Your task to perform on an android device: Is it going to rain tomorrow? Image 0: 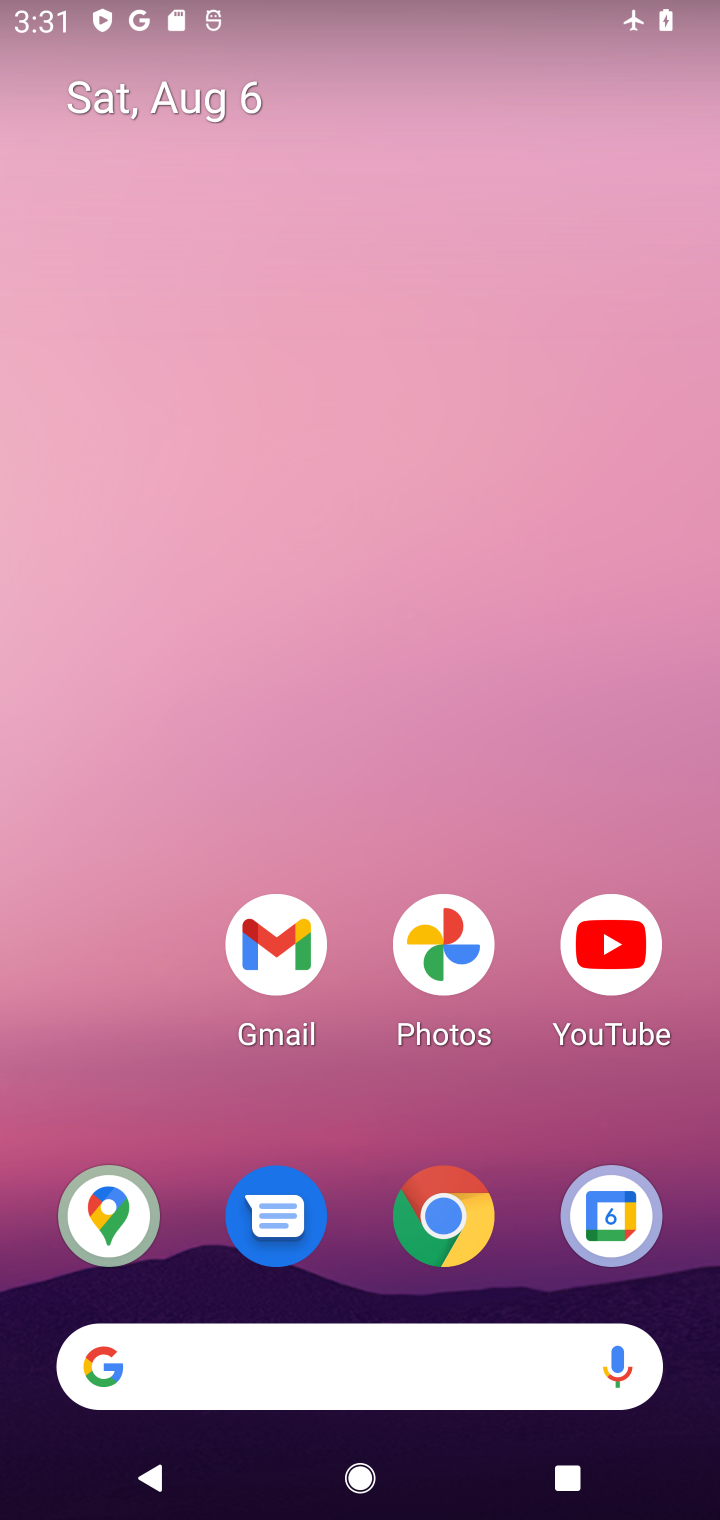
Step 0: click (451, 1260)
Your task to perform on an android device: Is it going to rain tomorrow? Image 1: 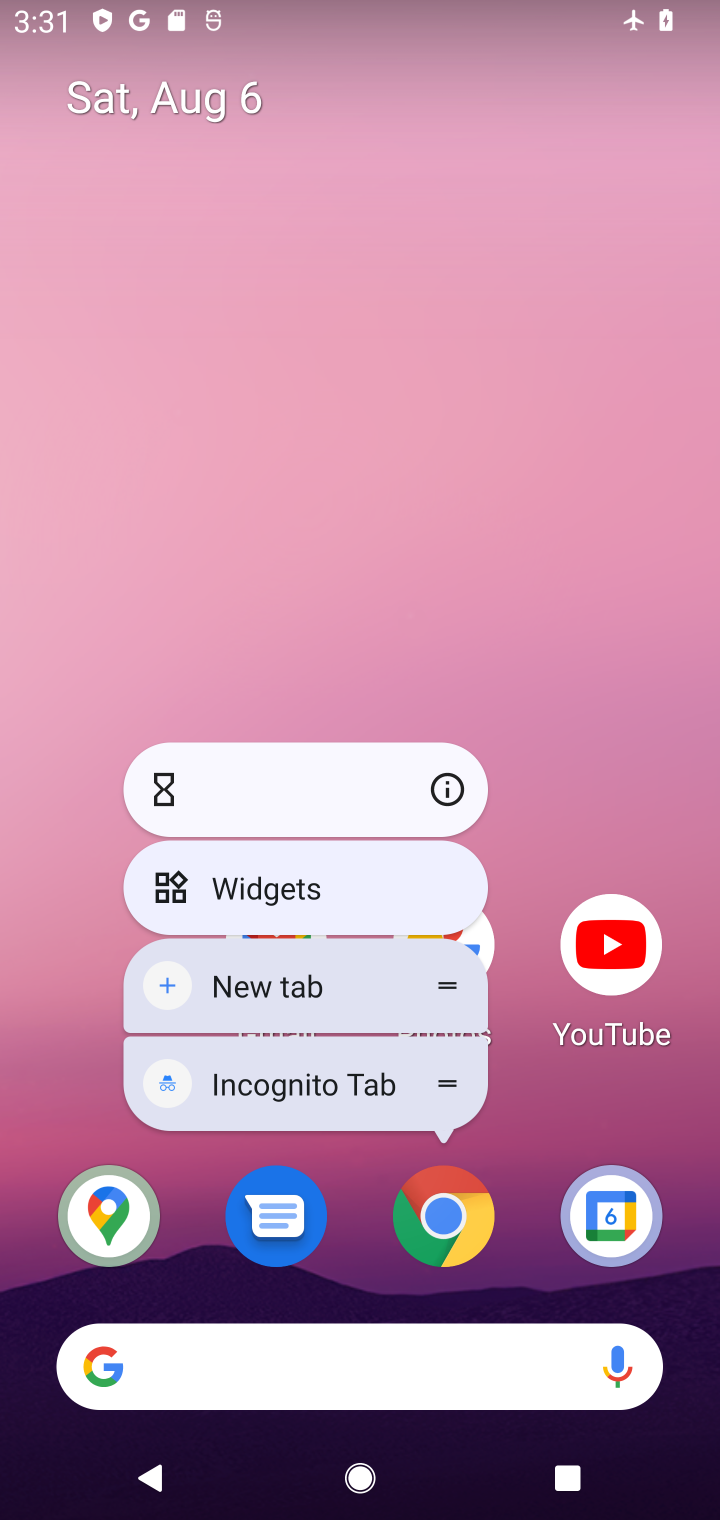
Step 1: click (449, 1232)
Your task to perform on an android device: Is it going to rain tomorrow? Image 2: 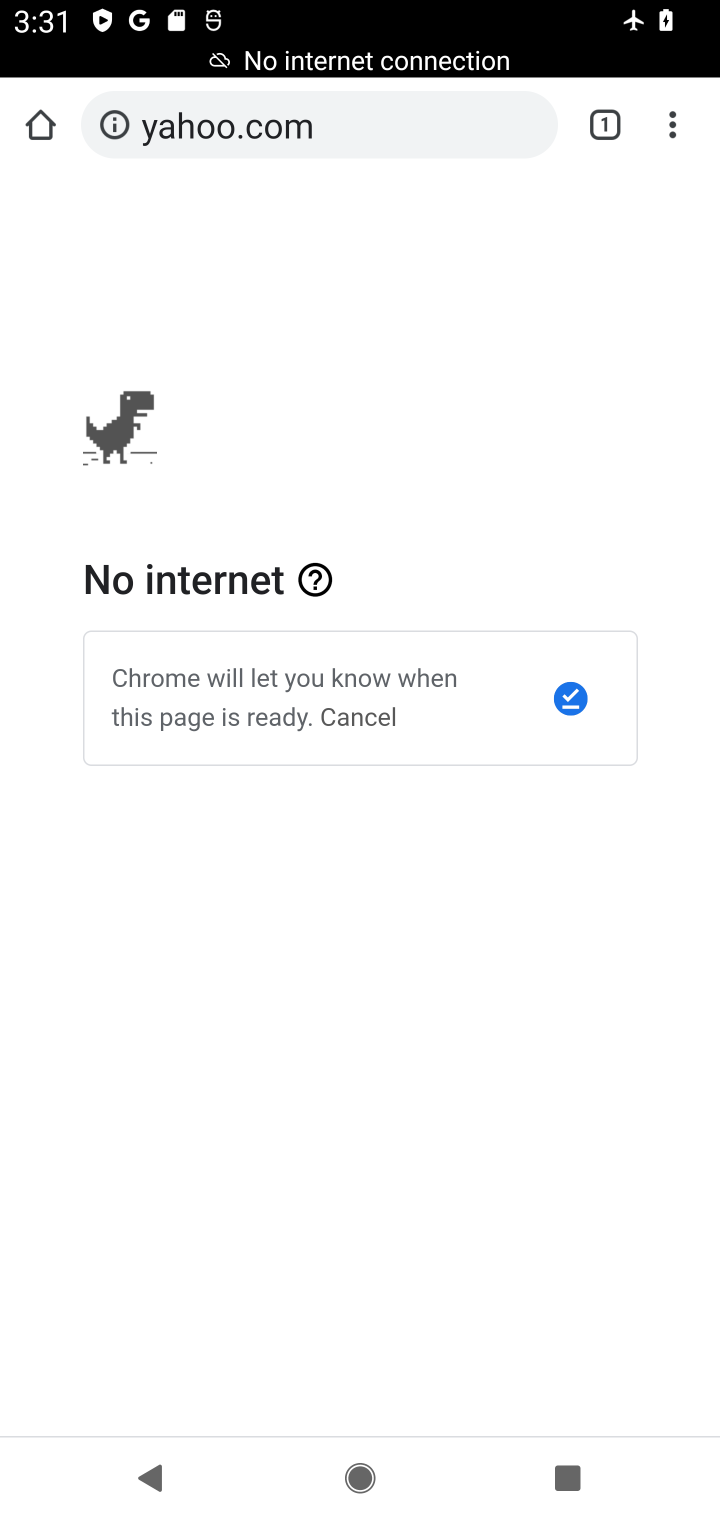
Step 2: click (388, 105)
Your task to perform on an android device: Is it going to rain tomorrow? Image 3: 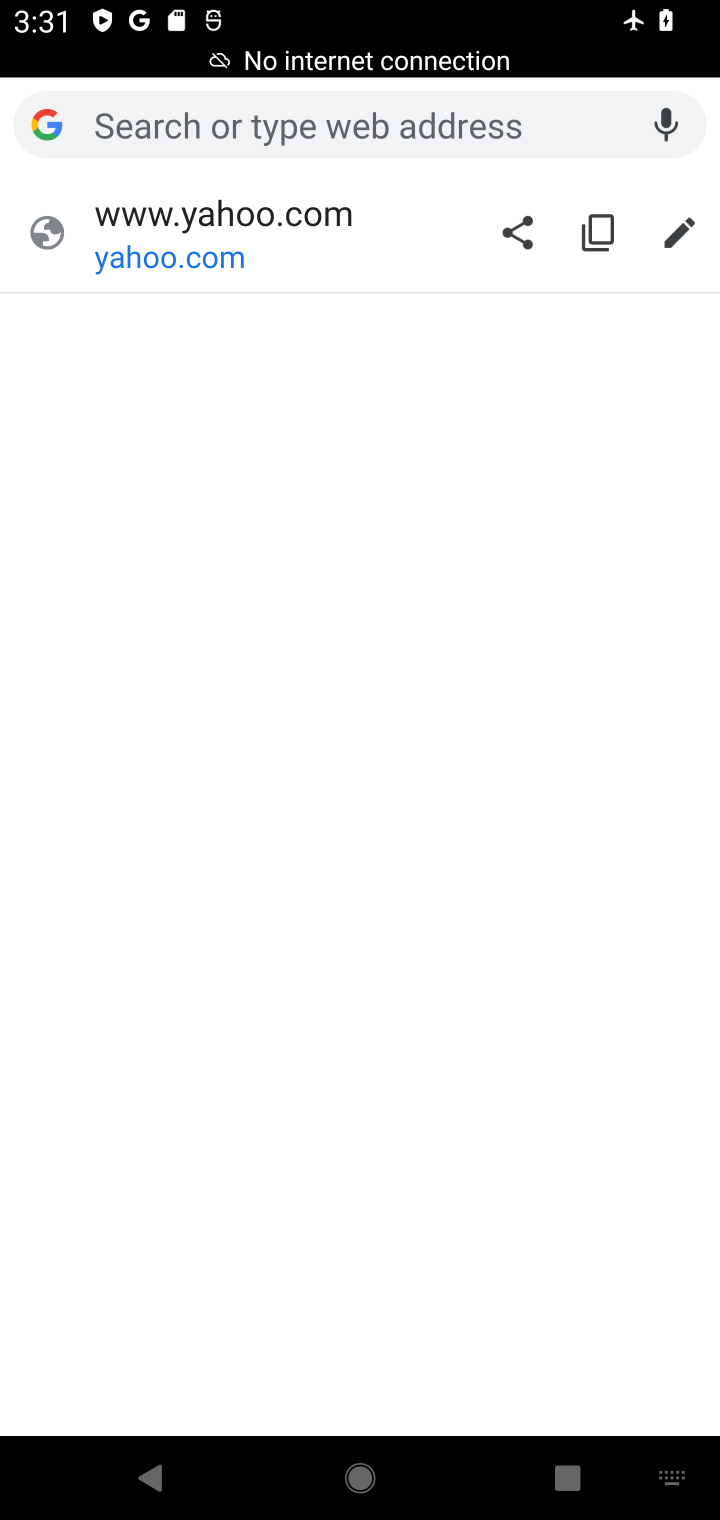
Step 3: type "Is it going to rain tomorrow?"
Your task to perform on an android device: Is it going to rain tomorrow? Image 4: 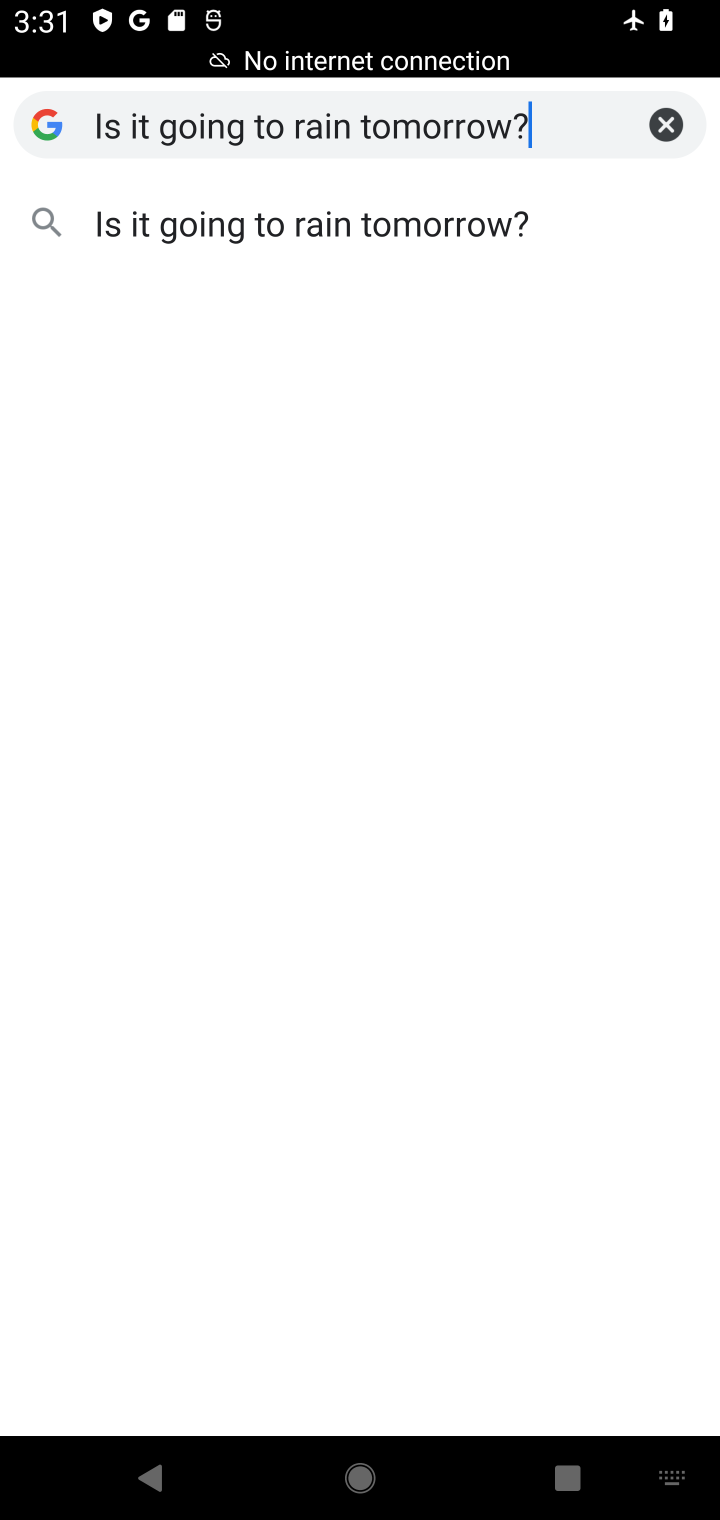
Step 4: click (446, 251)
Your task to perform on an android device: Is it going to rain tomorrow? Image 5: 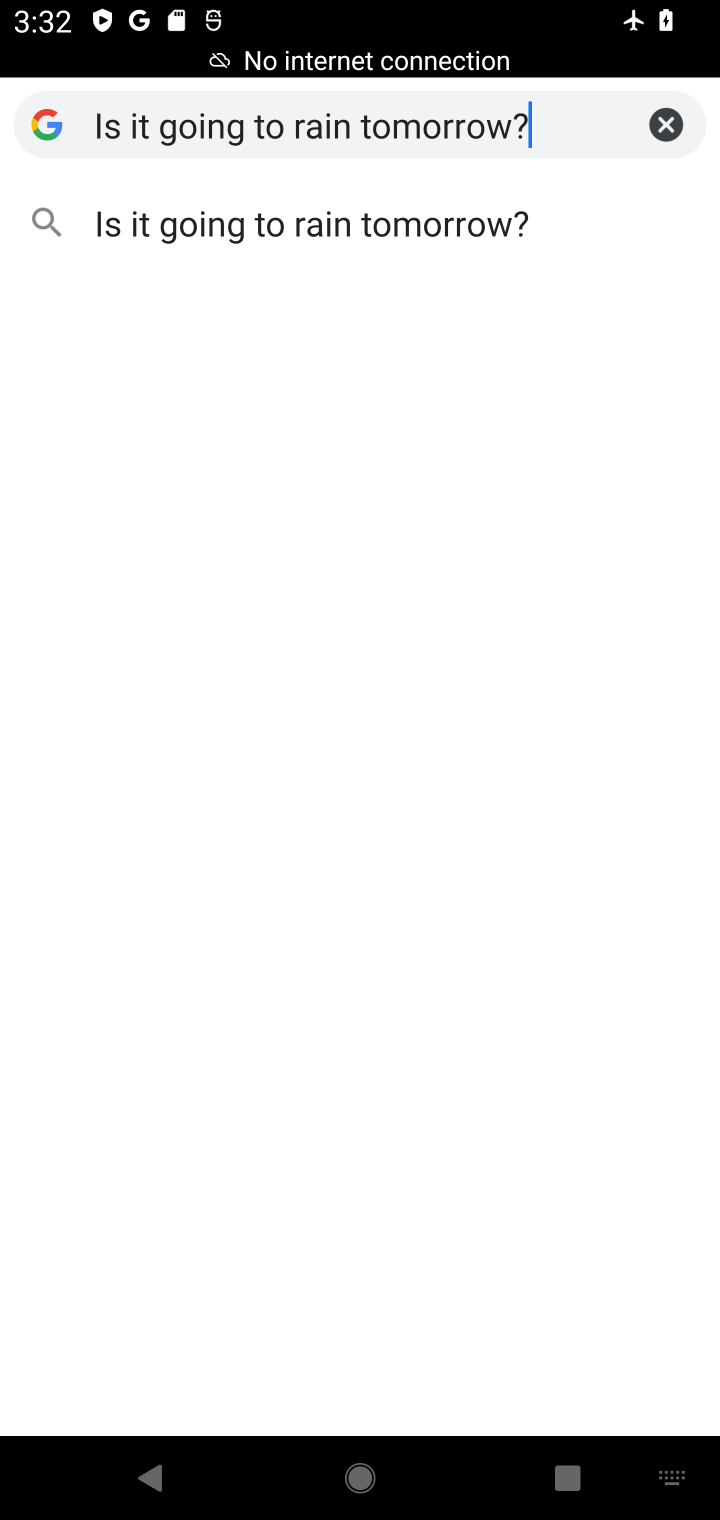
Step 5: click (446, 251)
Your task to perform on an android device: Is it going to rain tomorrow? Image 6: 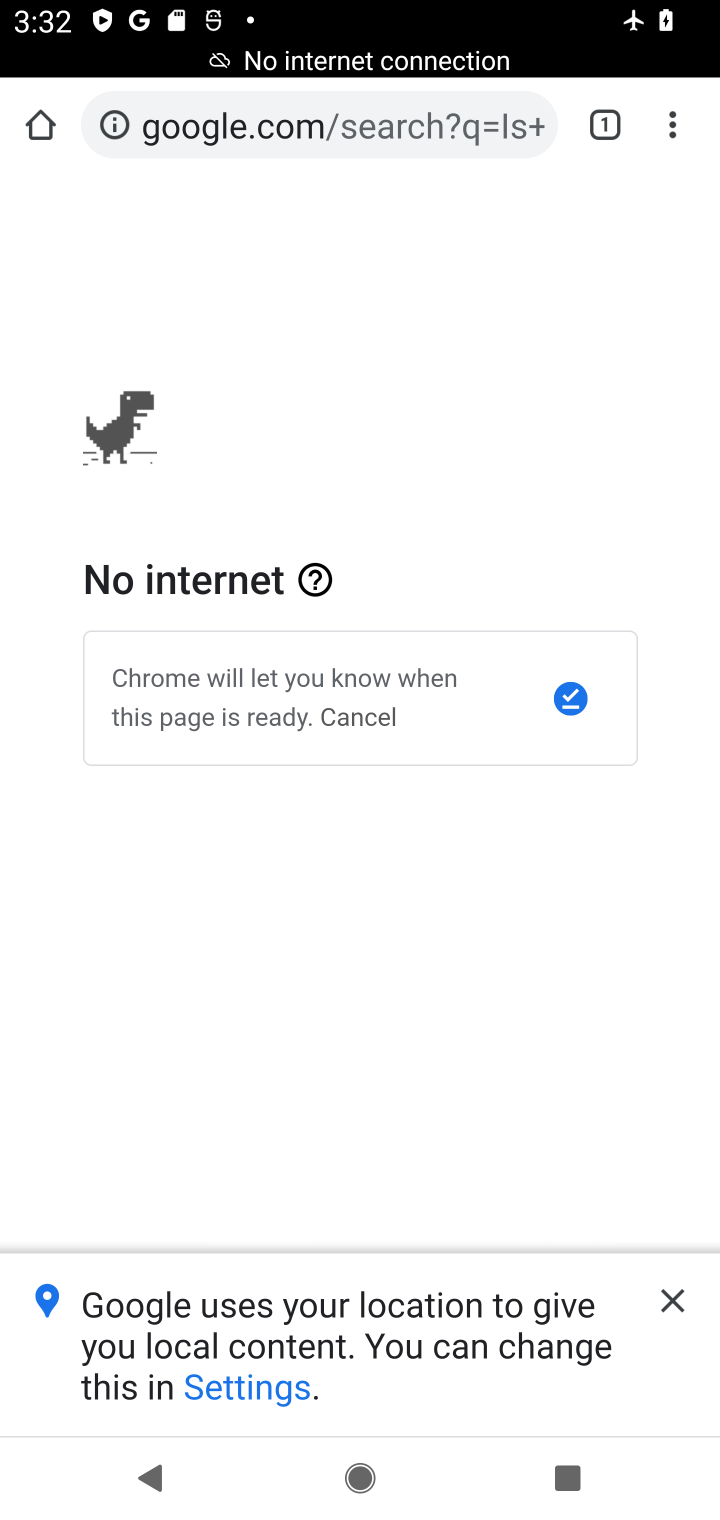
Step 6: task complete